Your task to perform on an android device: turn off priority inbox in the gmail app Image 0: 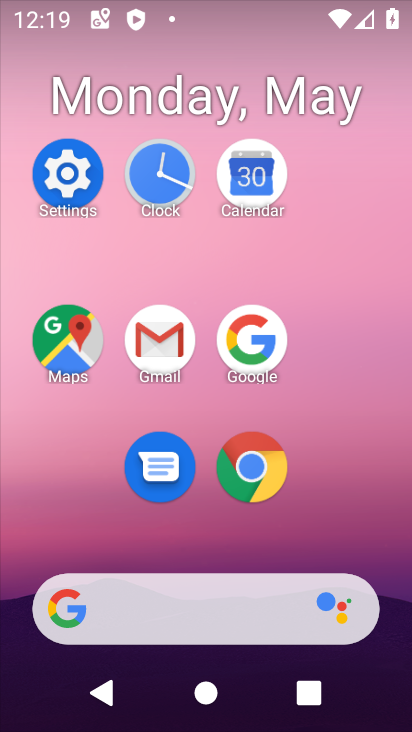
Step 0: click (189, 340)
Your task to perform on an android device: turn off priority inbox in the gmail app Image 1: 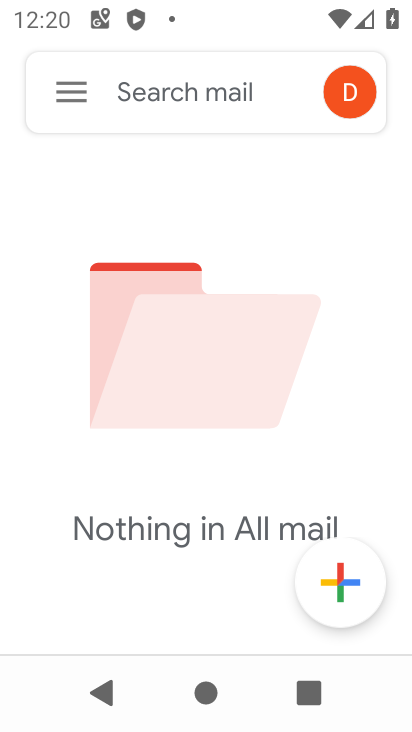
Step 1: click (76, 113)
Your task to perform on an android device: turn off priority inbox in the gmail app Image 2: 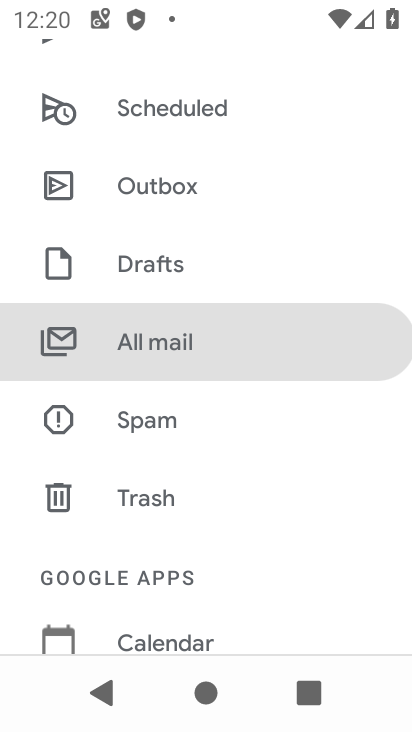
Step 2: drag from (330, 583) to (276, 154)
Your task to perform on an android device: turn off priority inbox in the gmail app Image 3: 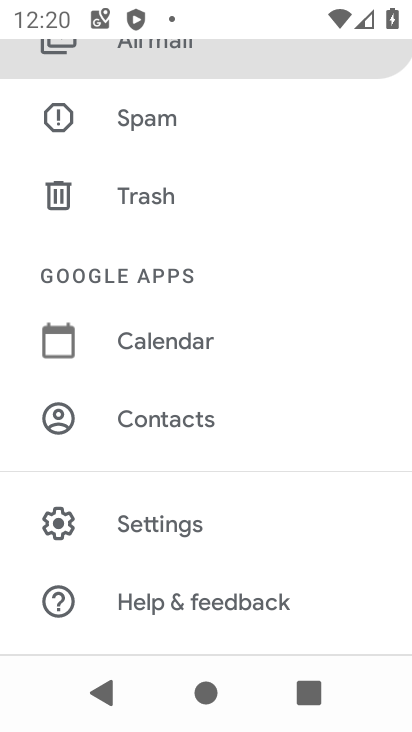
Step 3: click (213, 543)
Your task to perform on an android device: turn off priority inbox in the gmail app Image 4: 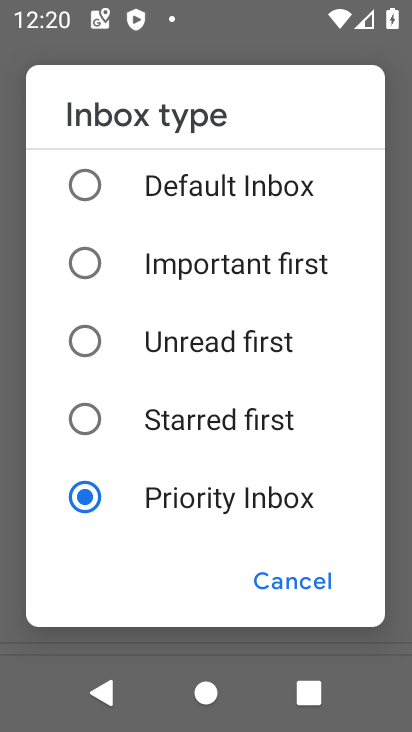
Step 4: click (169, 180)
Your task to perform on an android device: turn off priority inbox in the gmail app Image 5: 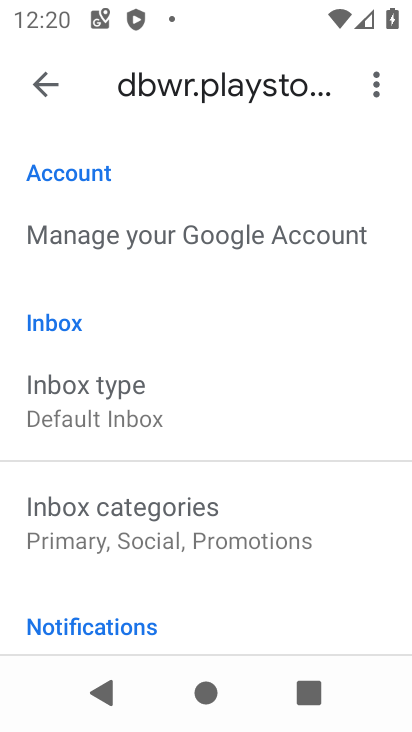
Step 5: task complete